Your task to perform on an android device: turn pop-ups off in chrome Image 0: 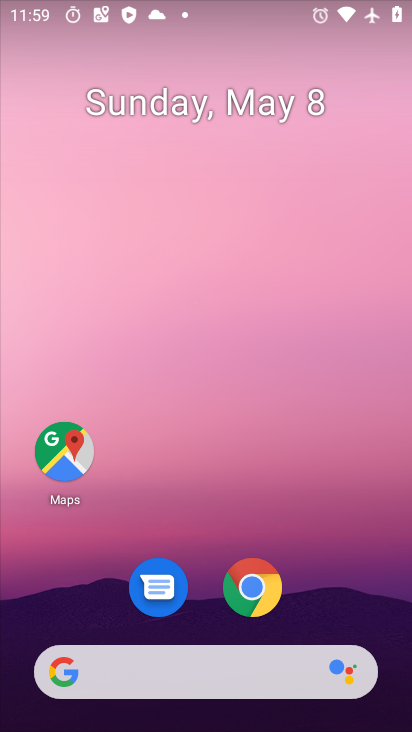
Step 0: drag from (349, 659) to (236, 234)
Your task to perform on an android device: turn pop-ups off in chrome Image 1: 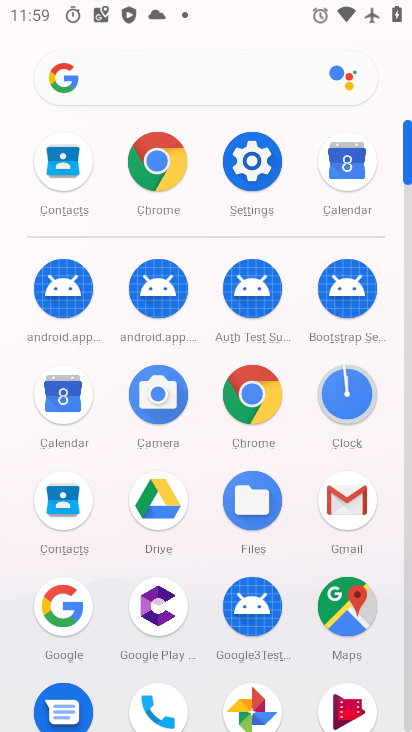
Step 1: click (147, 166)
Your task to perform on an android device: turn pop-ups off in chrome Image 2: 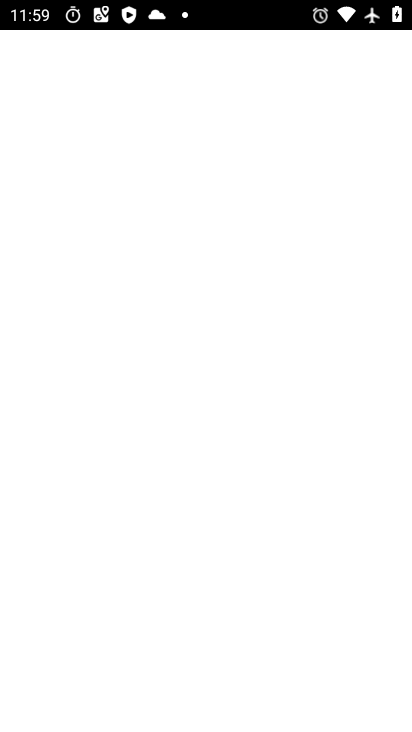
Step 2: click (148, 168)
Your task to perform on an android device: turn pop-ups off in chrome Image 3: 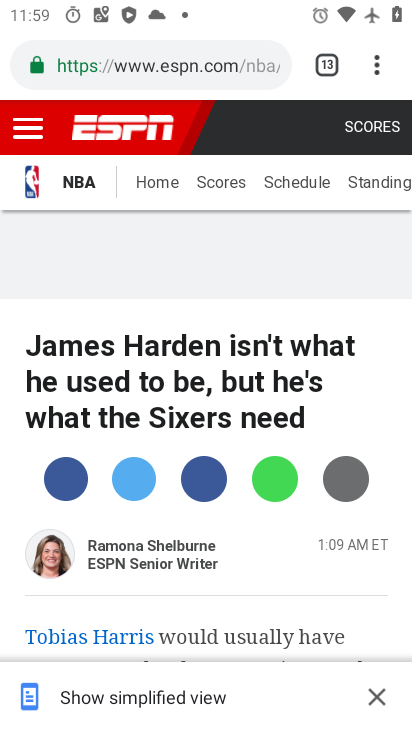
Step 3: drag from (380, 62) to (157, 633)
Your task to perform on an android device: turn pop-ups off in chrome Image 4: 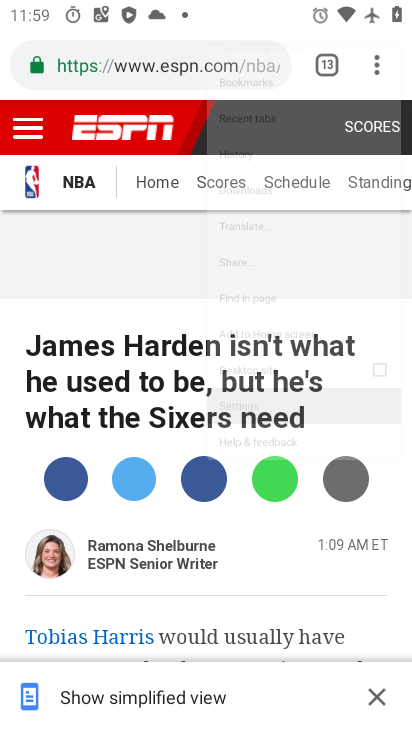
Step 4: click (150, 628)
Your task to perform on an android device: turn pop-ups off in chrome Image 5: 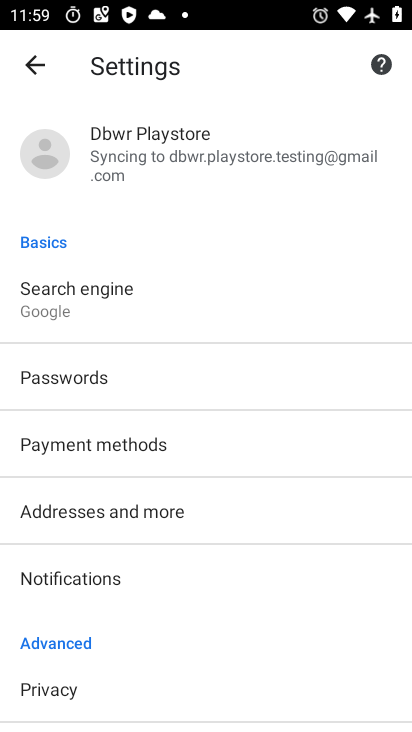
Step 5: drag from (172, 607) to (85, 188)
Your task to perform on an android device: turn pop-ups off in chrome Image 6: 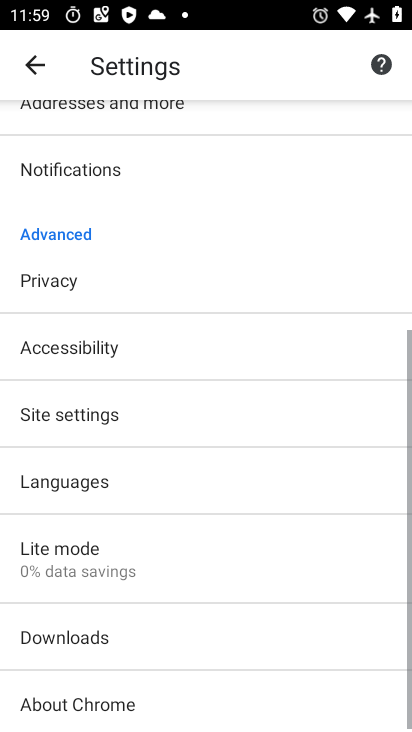
Step 6: drag from (163, 478) to (185, 183)
Your task to perform on an android device: turn pop-ups off in chrome Image 7: 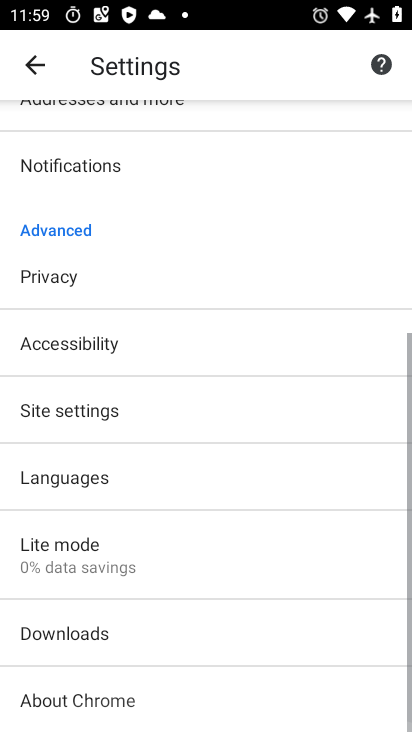
Step 7: drag from (203, 568) to (226, 198)
Your task to perform on an android device: turn pop-ups off in chrome Image 8: 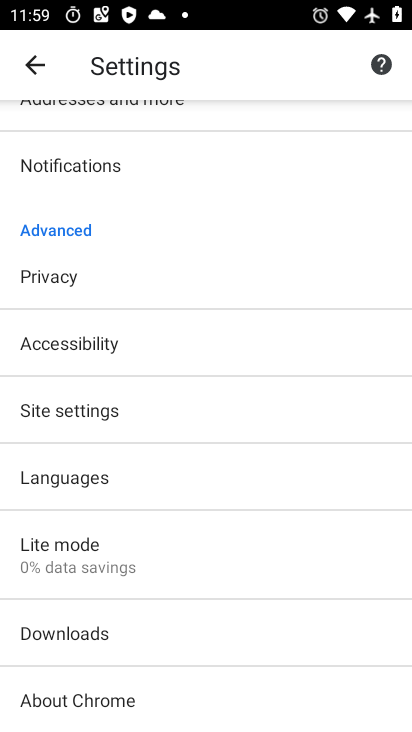
Step 8: click (47, 405)
Your task to perform on an android device: turn pop-ups off in chrome Image 9: 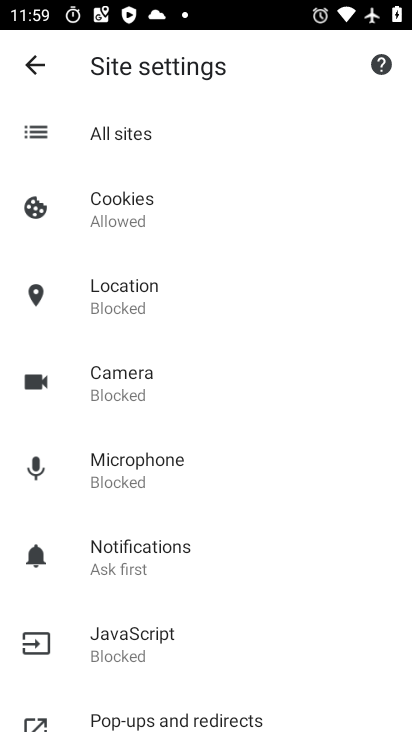
Step 9: drag from (169, 619) to (169, 272)
Your task to perform on an android device: turn pop-ups off in chrome Image 10: 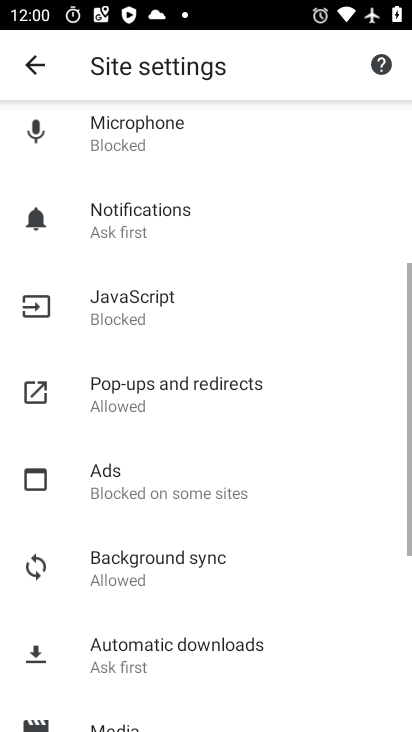
Step 10: drag from (217, 483) to (198, 137)
Your task to perform on an android device: turn pop-ups off in chrome Image 11: 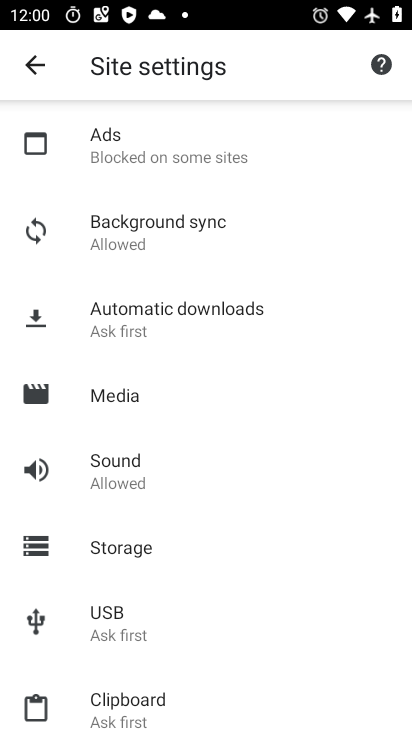
Step 11: drag from (148, 304) to (182, 521)
Your task to perform on an android device: turn pop-ups off in chrome Image 12: 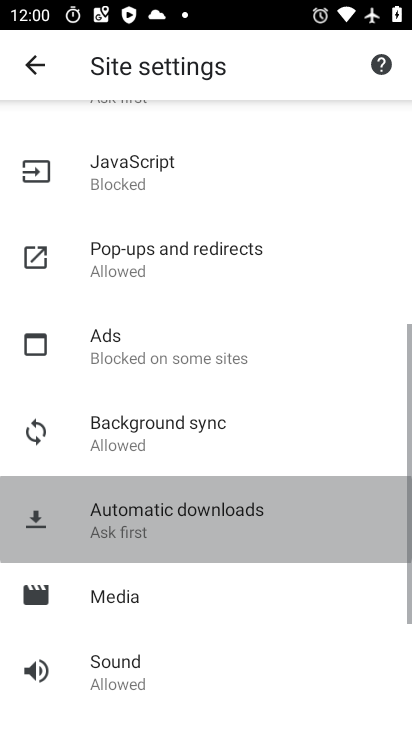
Step 12: drag from (163, 222) to (215, 485)
Your task to perform on an android device: turn pop-ups off in chrome Image 13: 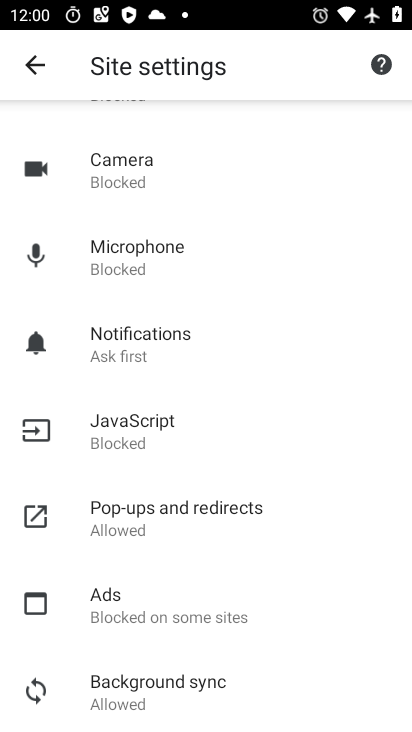
Step 13: click (129, 518)
Your task to perform on an android device: turn pop-ups off in chrome Image 14: 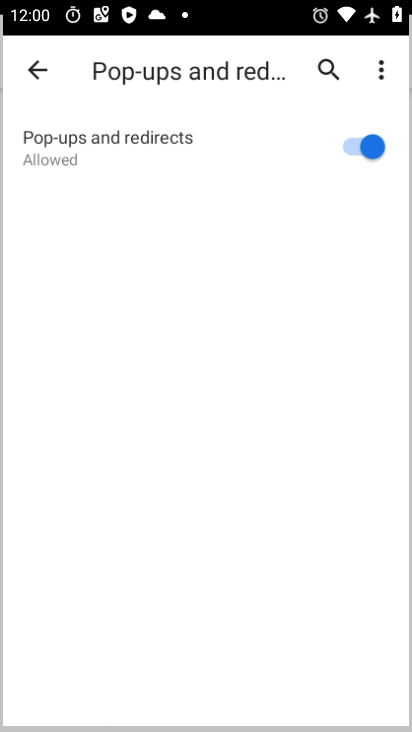
Step 14: click (132, 513)
Your task to perform on an android device: turn pop-ups off in chrome Image 15: 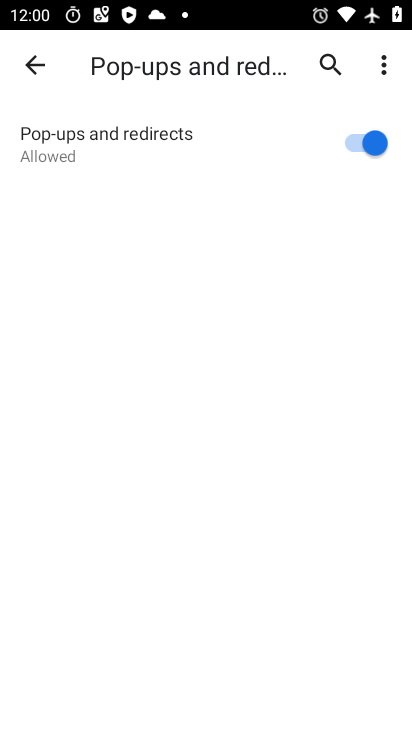
Step 15: click (363, 143)
Your task to perform on an android device: turn pop-ups off in chrome Image 16: 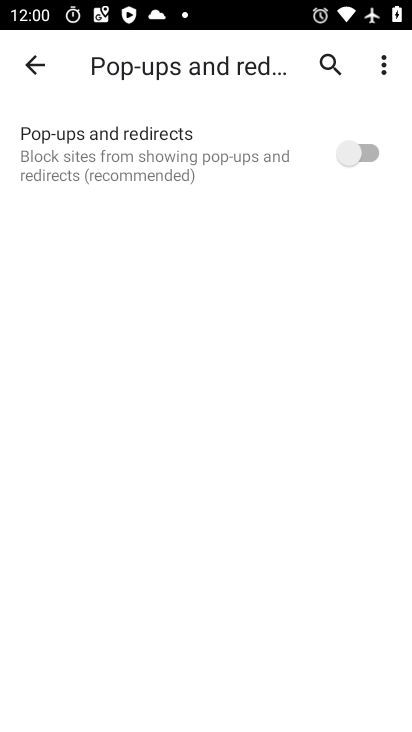
Step 16: task complete